Your task to perform on an android device: Search for Italian restaurants on Maps Image 0: 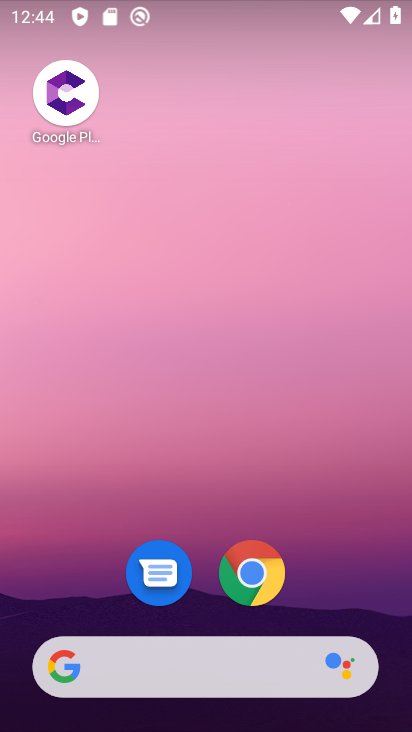
Step 0: drag from (205, 690) to (205, 179)
Your task to perform on an android device: Search for Italian restaurants on Maps Image 1: 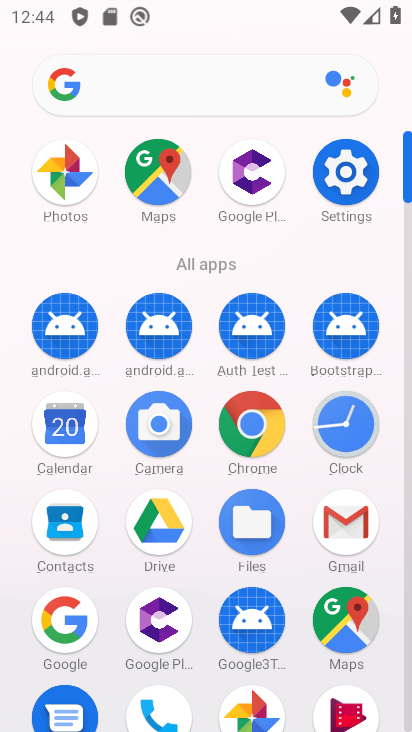
Step 1: click (343, 611)
Your task to perform on an android device: Search for Italian restaurants on Maps Image 2: 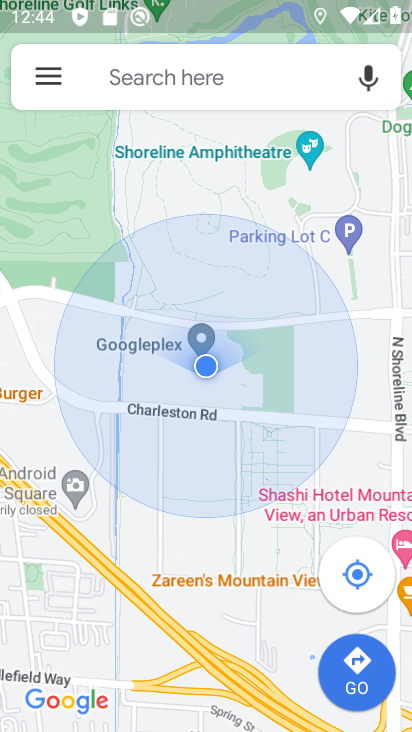
Step 2: click (151, 75)
Your task to perform on an android device: Search for Italian restaurants on Maps Image 3: 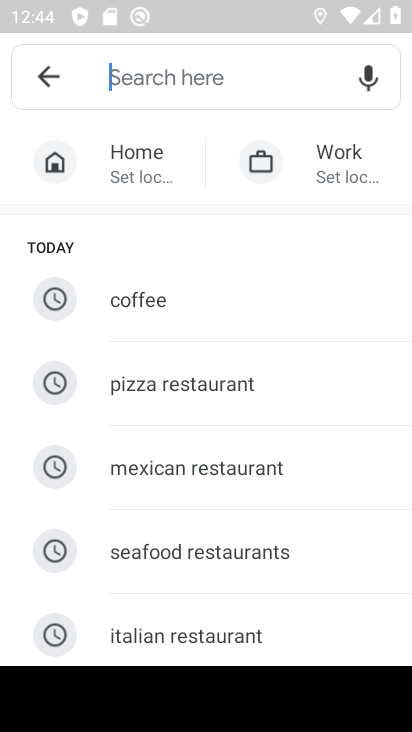
Step 3: type "italian restaurants"
Your task to perform on an android device: Search for Italian restaurants on Maps Image 4: 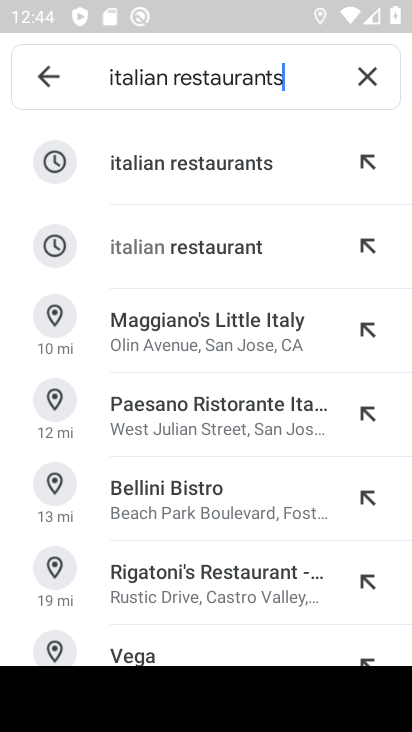
Step 4: click (139, 164)
Your task to perform on an android device: Search for Italian restaurants on Maps Image 5: 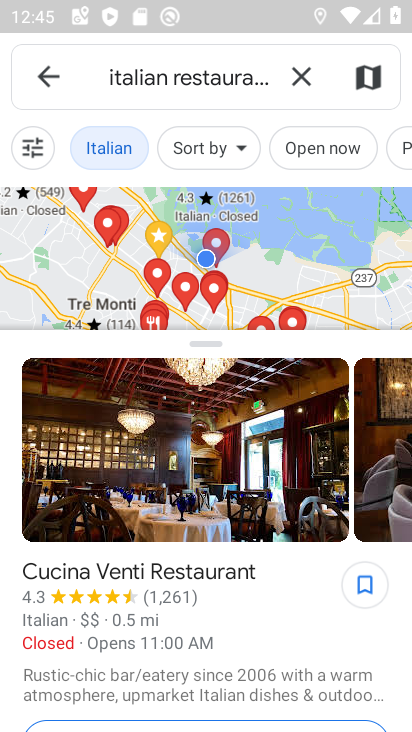
Step 5: task complete